Your task to perform on an android device: change the clock display to show seconds Image 0: 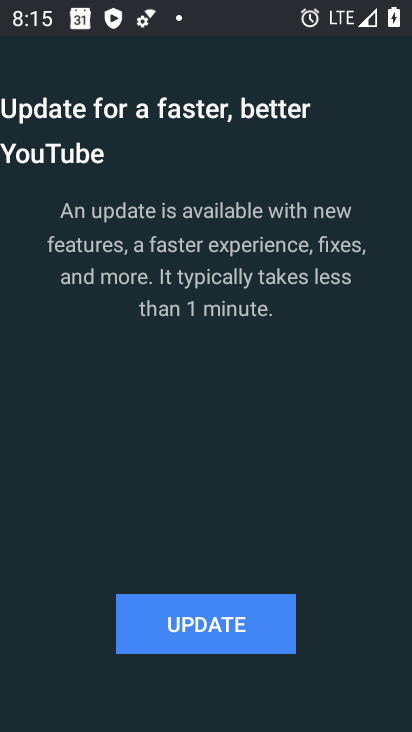
Step 0: press home button
Your task to perform on an android device: change the clock display to show seconds Image 1: 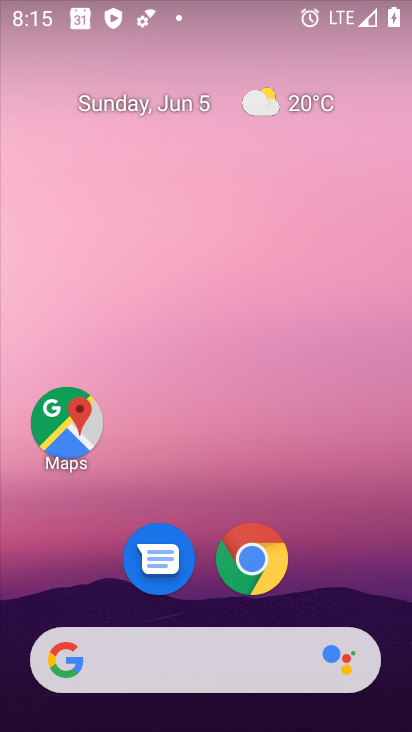
Step 1: drag from (373, 522) to (382, 179)
Your task to perform on an android device: change the clock display to show seconds Image 2: 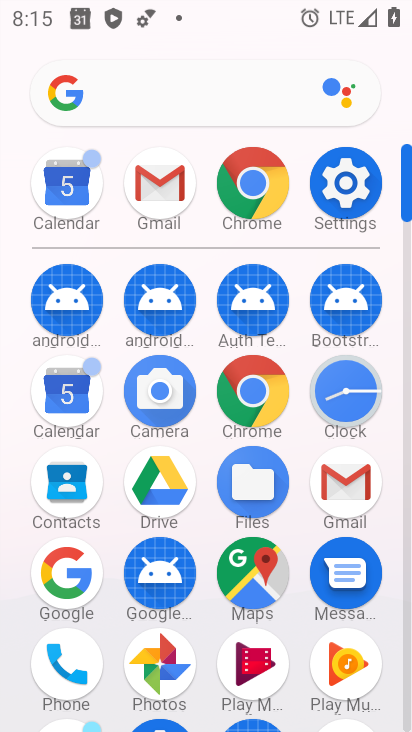
Step 2: click (337, 393)
Your task to perform on an android device: change the clock display to show seconds Image 3: 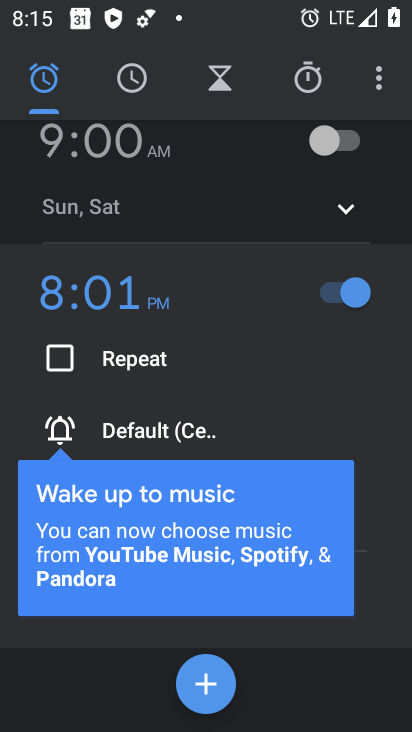
Step 3: click (387, 74)
Your task to perform on an android device: change the clock display to show seconds Image 4: 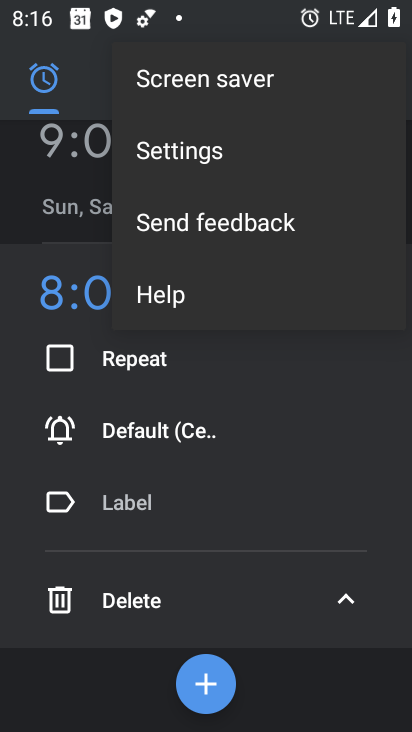
Step 4: click (187, 159)
Your task to perform on an android device: change the clock display to show seconds Image 5: 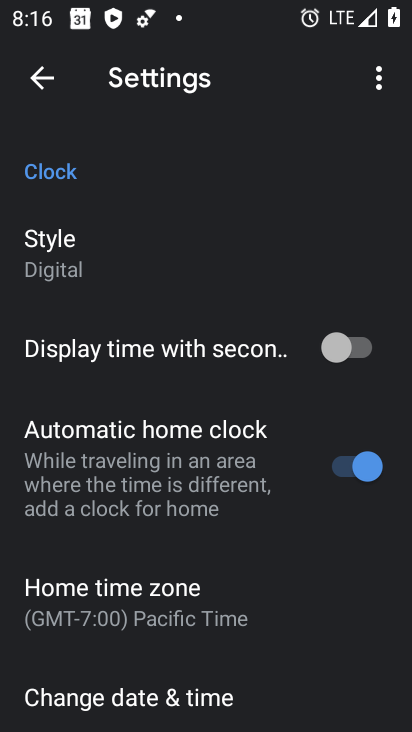
Step 5: click (377, 337)
Your task to perform on an android device: change the clock display to show seconds Image 6: 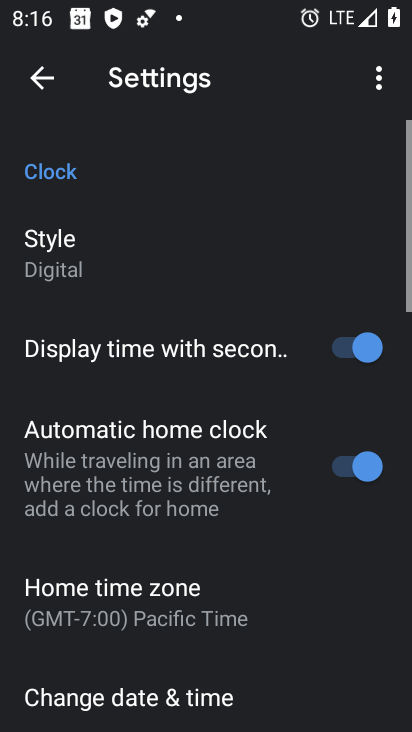
Step 6: task complete